Your task to perform on an android device: Open Google Maps and go to "Timeline" Image 0: 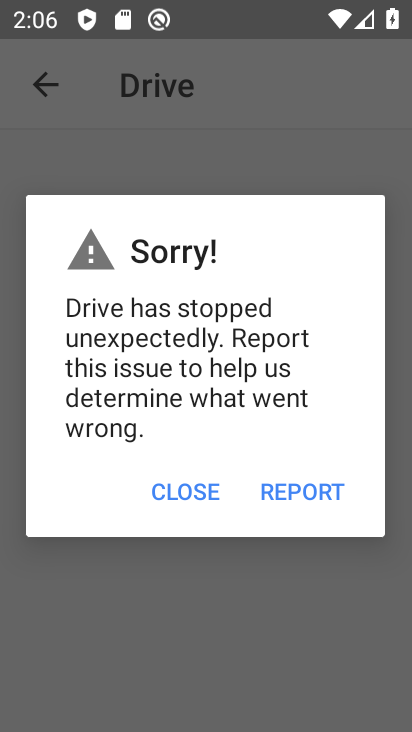
Step 0: press home button
Your task to perform on an android device: Open Google Maps and go to "Timeline" Image 1: 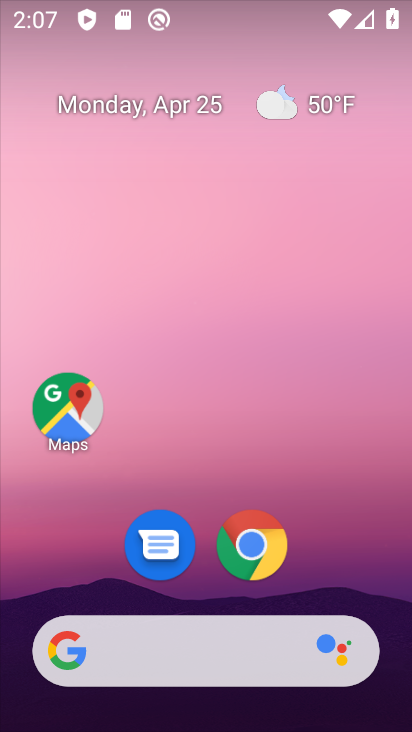
Step 1: click (65, 404)
Your task to perform on an android device: Open Google Maps and go to "Timeline" Image 2: 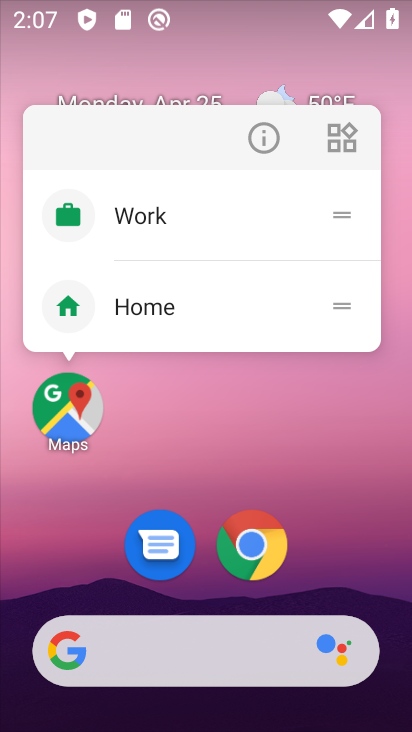
Step 2: click (65, 404)
Your task to perform on an android device: Open Google Maps and go to "Timeline" Image 3: 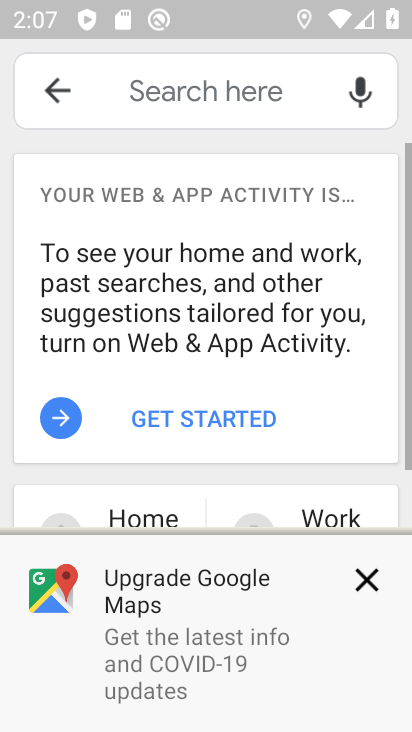
Step 3: click (57, 88)
Your task to perform on an android device: Open Google Maps and go to "Timeline" Image 4: 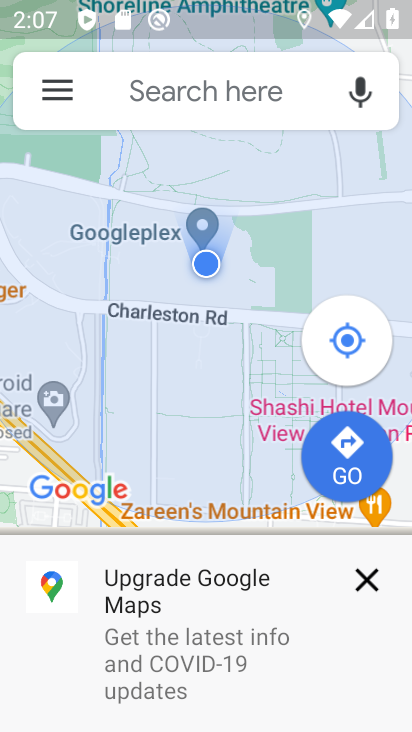
Step 4: click (57, 88)
Your task to perform on an android device: Open Google Maps and go to "Timeline" Image 5: 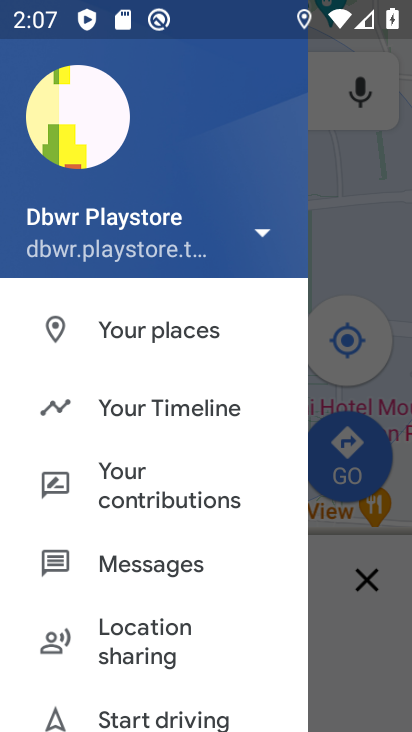
Step 5: click (143, 405)
Your task to perform on an android device: Open Google Maps and go to "Timeline" Image 6: 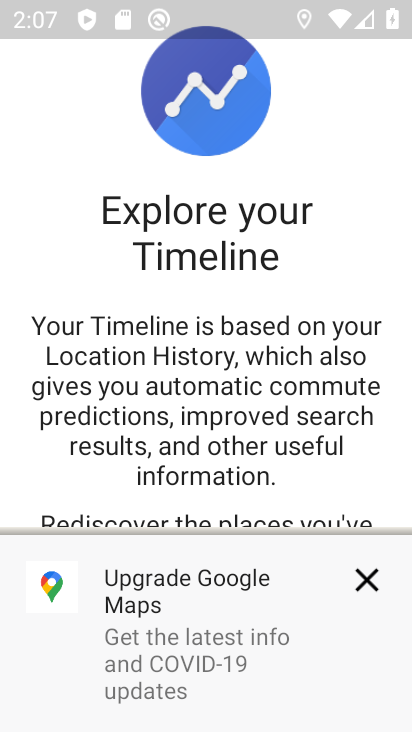
Step 6: click (363, 579)
Your task to perform on an android device: Open Google Maps and go to "Timeline" Image 7: 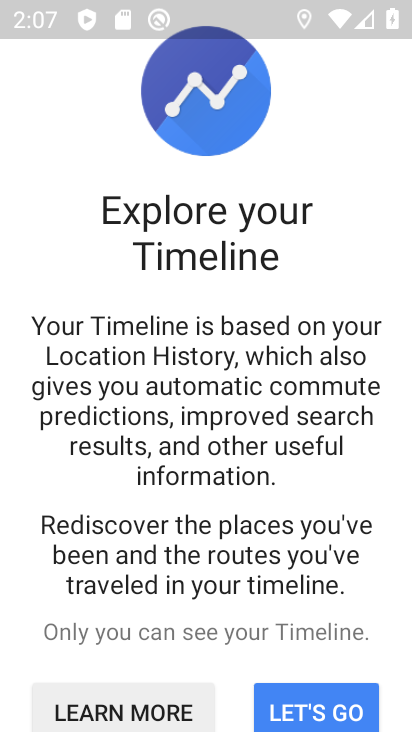
Step 7: click (316, 697)
Your task to perform on an android device: Open Google Maps and go to "Timeline" Image 8: 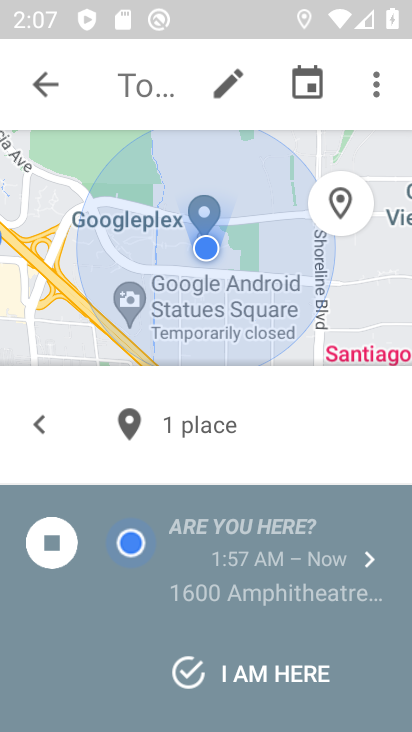
Step 8: task complete